Your task to perform on an android device: Go to Yahoo.com Image 0: 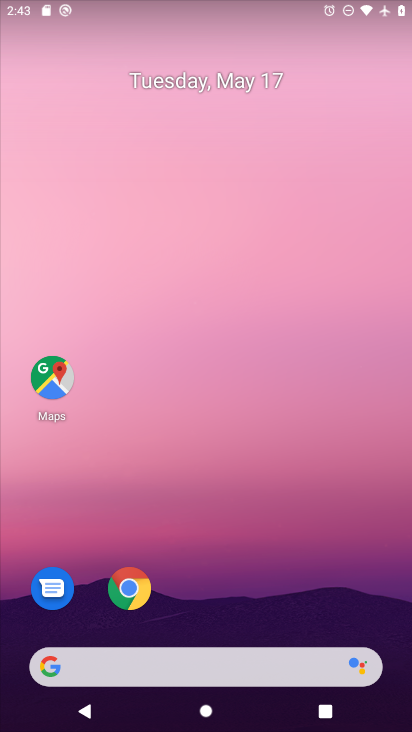
Step 0: click (126, 607)
Your task to perform on an android device: Go to Yahoo.com Image 1: 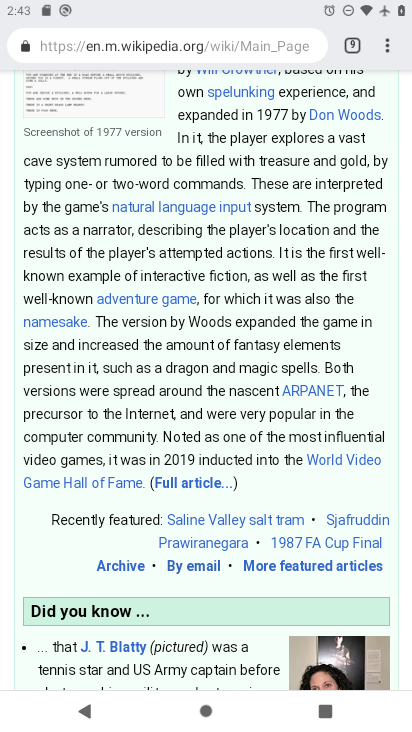
Step 1: click (355, 49)
Your task to perform on an android device: Go to Yahoo.com Image 2: 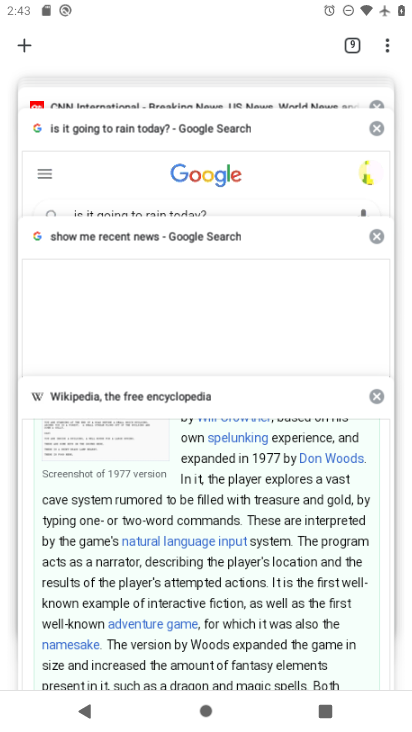
Step 2: drag from (247, 188) to (224, 567)
Your task to perform on an android device: Go to Yahoo.com Image 3: 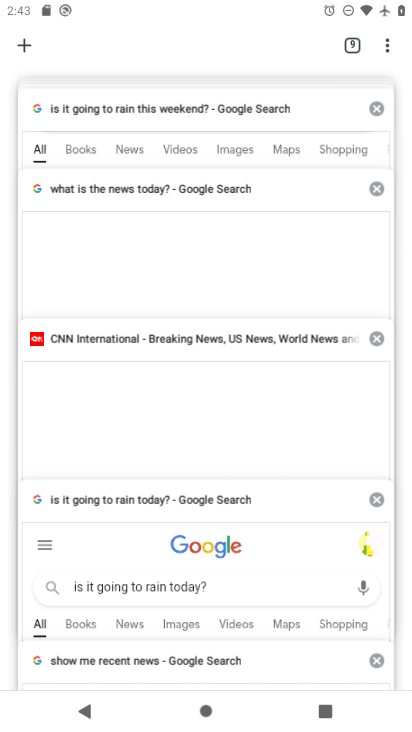
Step 3: drag from (183, 187) to (168, 496)
Your task to perform on an android device: Go to Yahoo.com Image 4: 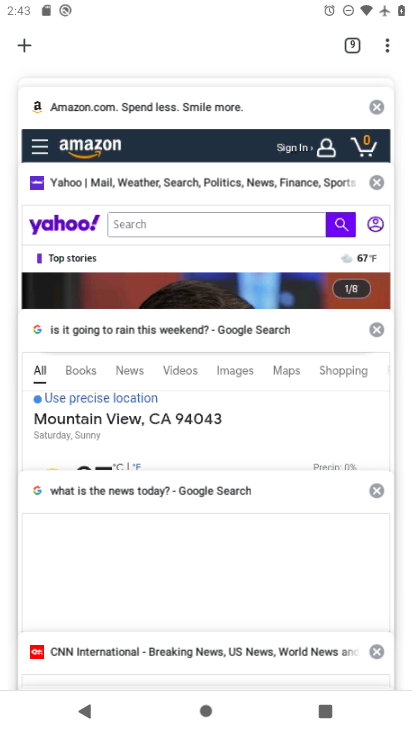
Step 4: drag from (188, 150) to (175, 325)
Your task to perform on an android device: Go to Yahoo.com Image 5: 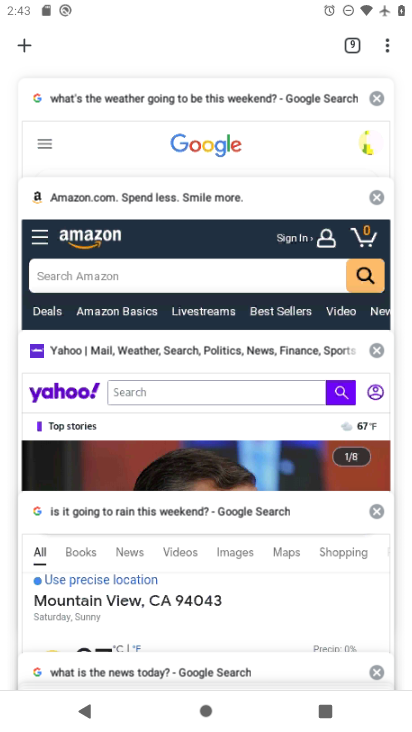
Step 5: click (133, 424)
Your task to perform on an android device: Go to Yahoo.com Image 6: 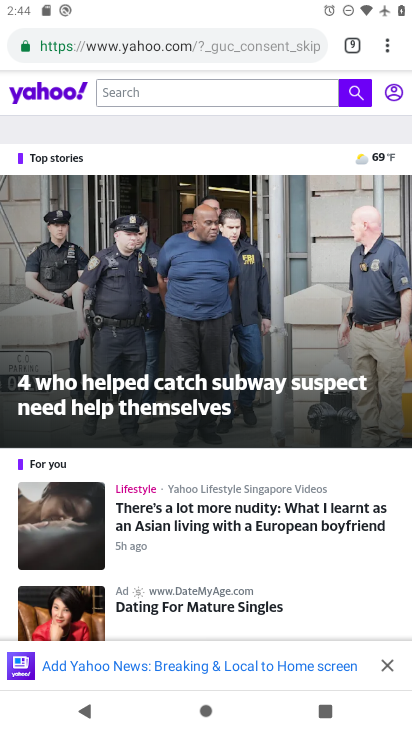
Step 6: task complete